Your task to perform on an android device: Open internet settings Image 0: 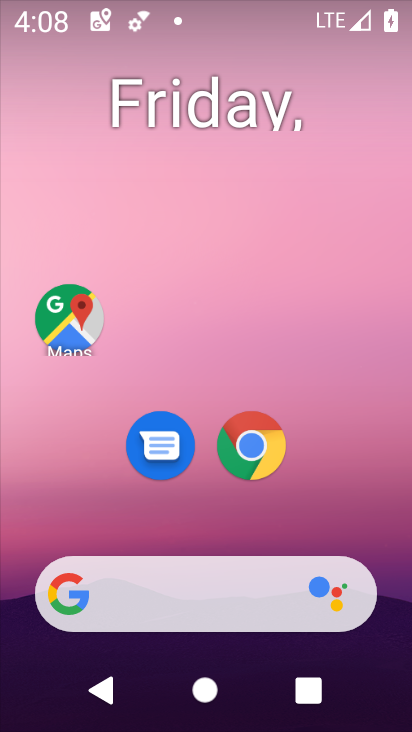
Step 0: drag from (387, 575) to (323, 136)
Your task to perform on an android device: Open internet settings Image 1: 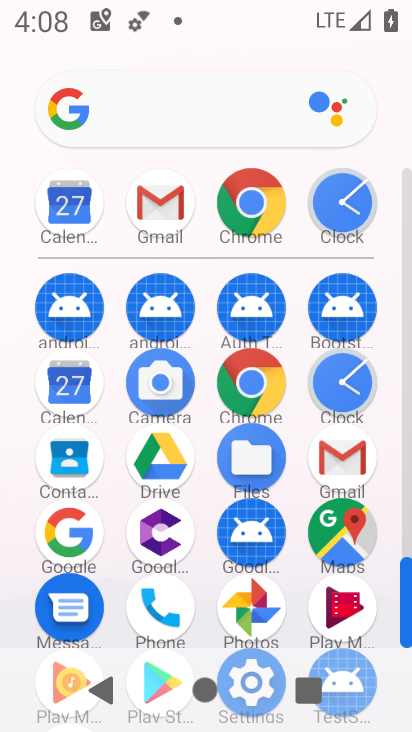
Step 1: drag from (384, 610) to (389, 372)
Your task to perform on an android device: Open internet settings Image 2: 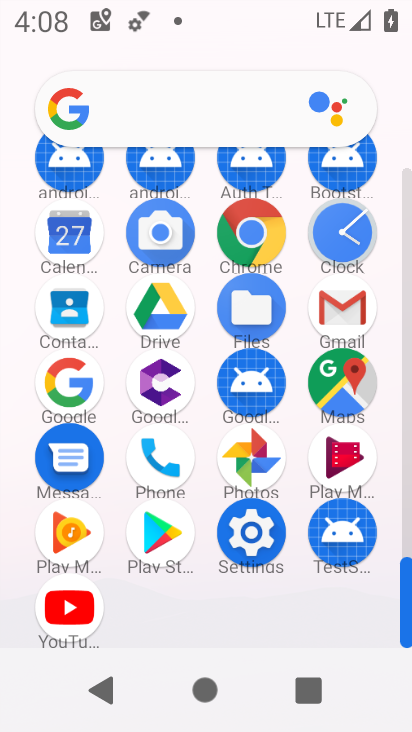
Step 2: click (262, 563)
Your task to perform on an android device: Open internet settings Image 3: 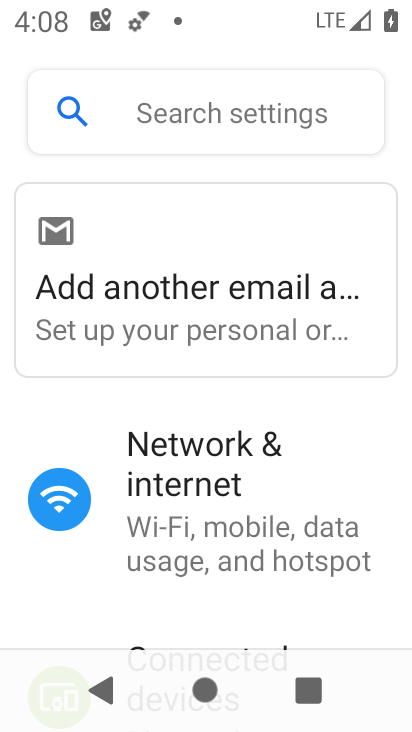
Step 3: click (215, 468)
Your task to perform on an android device: Open internet settings Image 4: 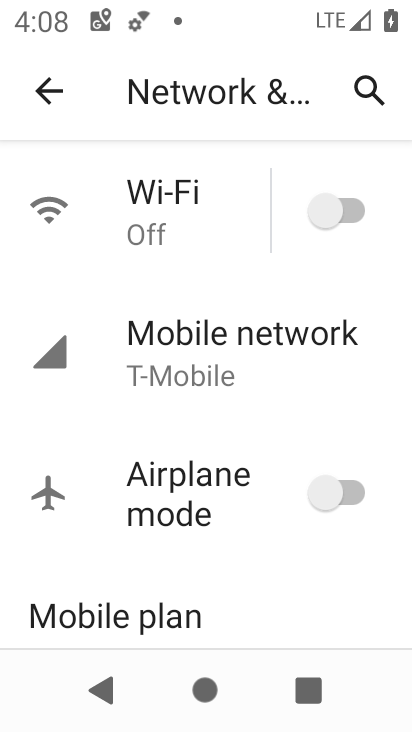
Step 4: task complete